Your task to perform on an android device: When is my next appointment? Image 0: 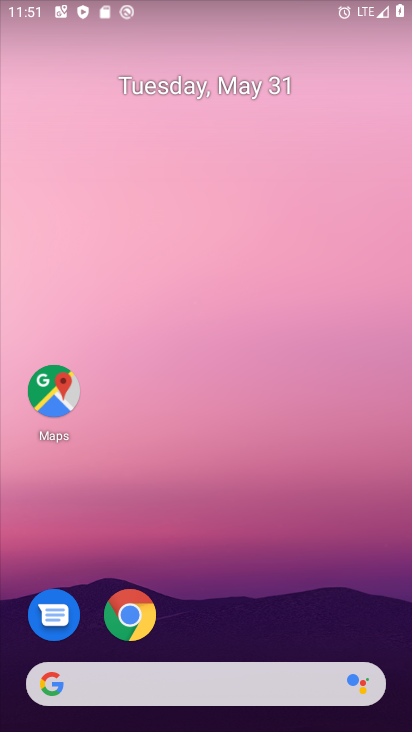
Step 0: drag from (339, 578) to (280, 61)
Your task to perform on an android device: When is my next appointment? Image 1: 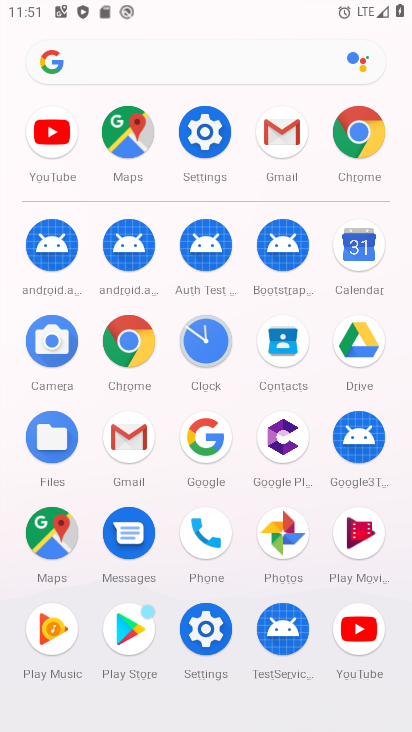
Step 1: click (364, 250)
Your task to perform on an android device: When is my next appointment? Image 2: 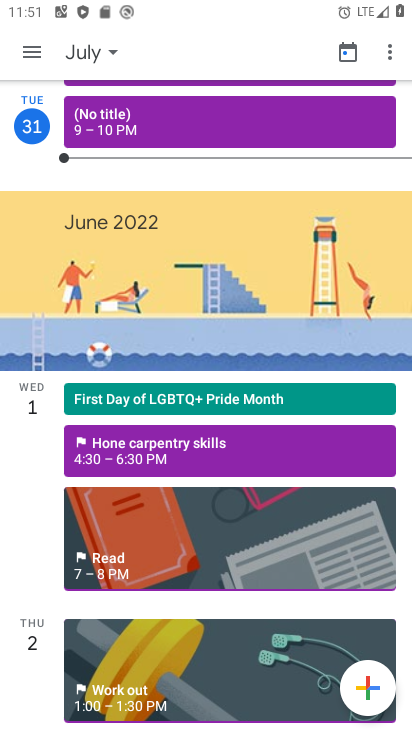
Step 2: click (113, 56)
Your task to perform on an android device: When is my next appointment? Image 3: 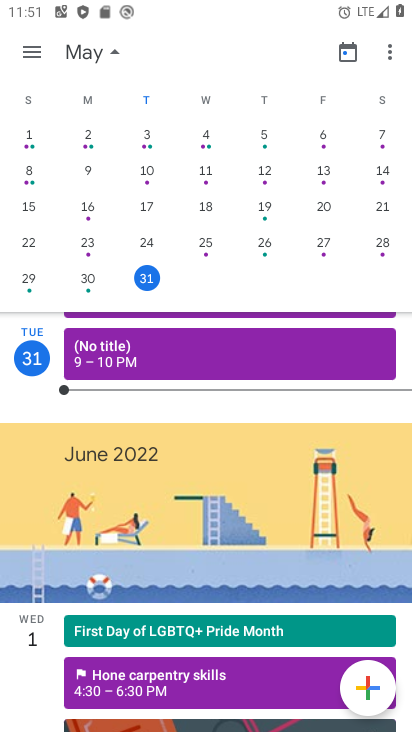
Step 3: task complete